Your task to perform on an android device: Open Yahoo.com Image 0: 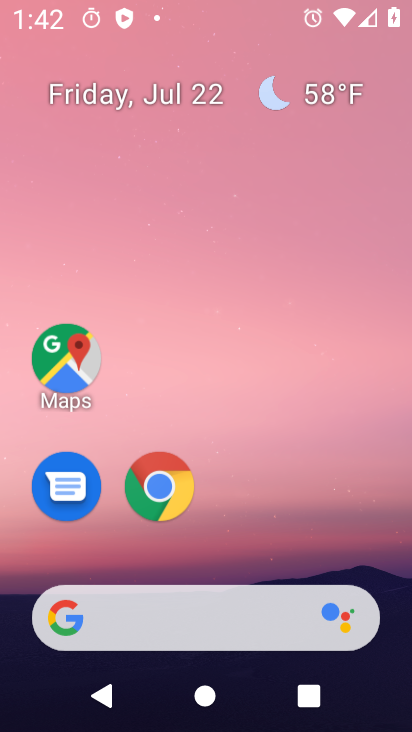
Step 0: press home button
Your task to perform on an android device: Open Yahoo.com Image 1: 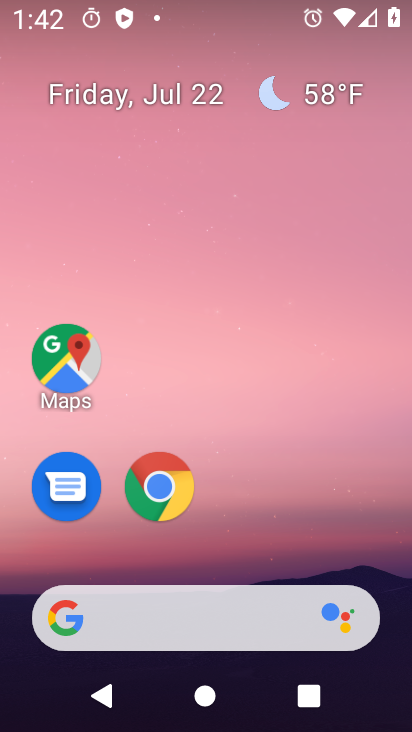
Step 1: drag from (299, 520) to (300, 210)
Your task to perform on an android device: Open Yahoo.com Image 2: 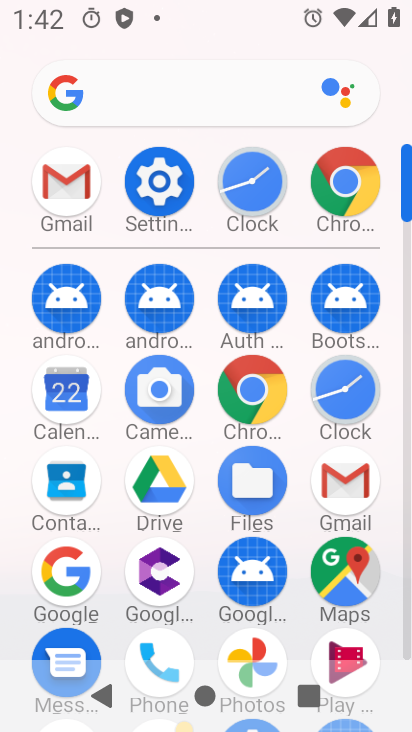
Step 2: click (271, 395)
Your task to perform on an android device: Open Yahoo.com Image 3: 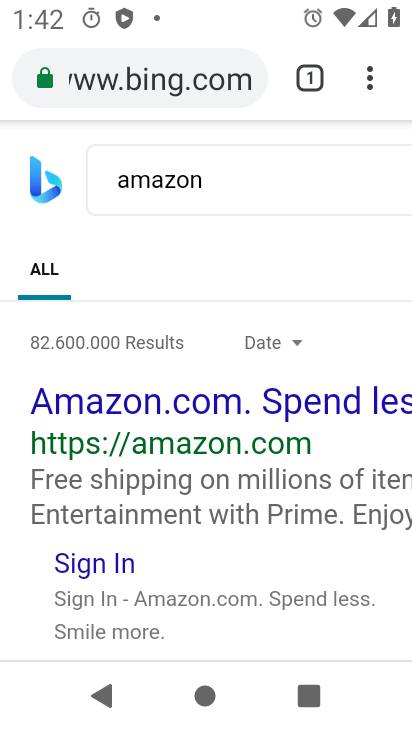
Step 3: click (201, 77)
Your task to perform on an android device: Open Yahoo.com Image 4: 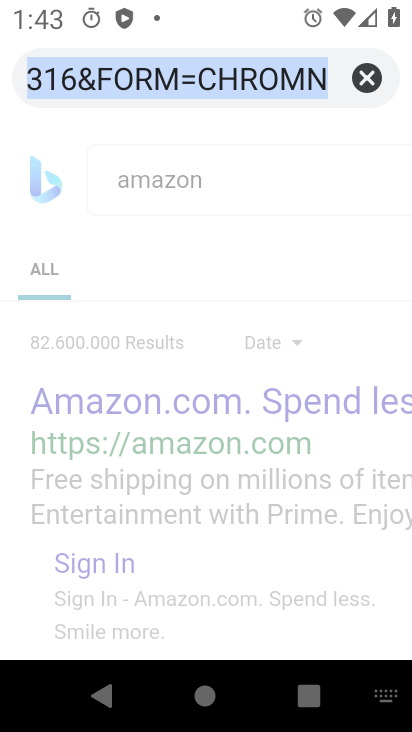
Step 4: type "yahoo.com"
Your task to perform on an android device: Open Yahoo.com Image 5: 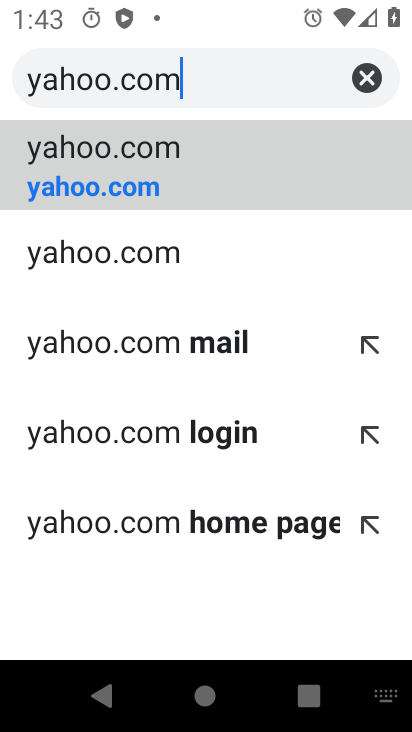
Step 5: click (279, 173)
Your task to perform on an android device: Open Yahoo.com Image 6: 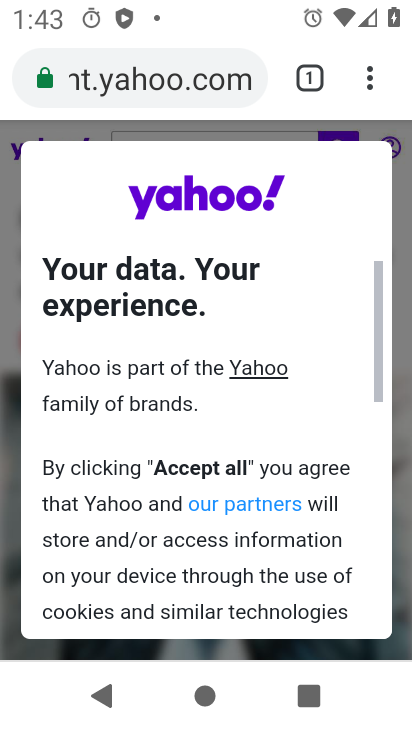
Step 6: task complete